Your task to perform on an android device: visit the assistant section in the google photos Image 0: 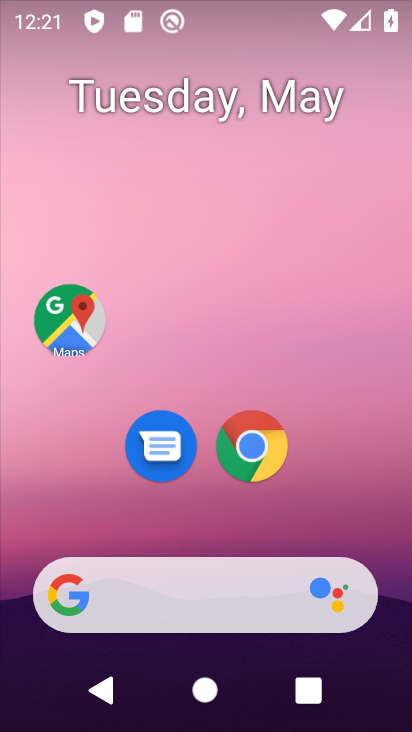
Step 0: press home button
Your task to perform on an android device: visit the assistant section in the google photos Image 1: 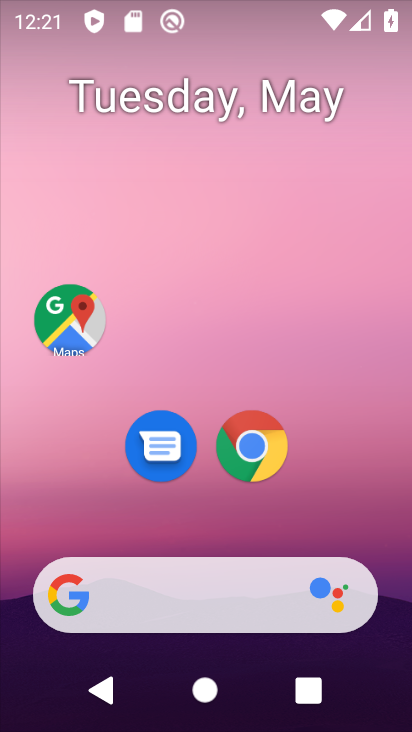
Step 1: drag from (221, 590) to (175, 165)
Your task to perform on an android device: visit the assistant section in the google photos Image 2: 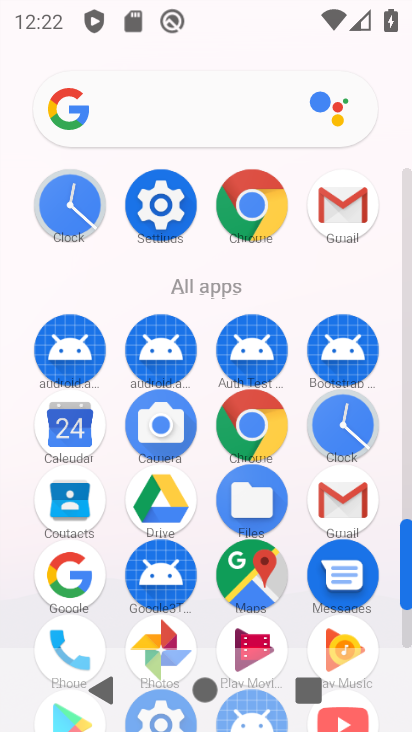
Step 2: drag from (218, 532) to (208, 233)
Your task to perform on an android device: visit the assistant section in the google photos Image 3: 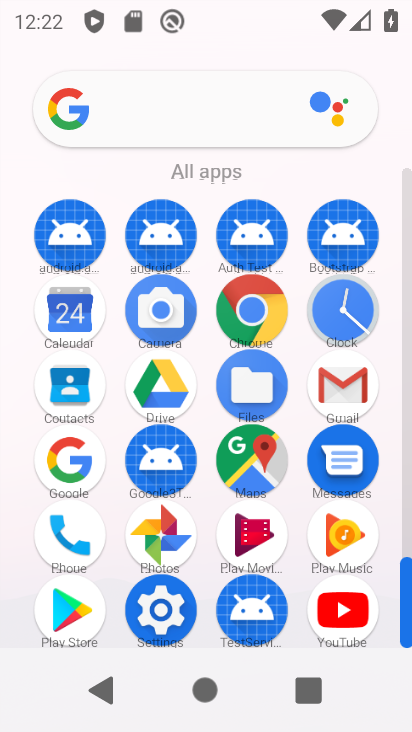
Step 3: click (176, 544)
Your task to perform on an android device: visit the assistant section in the google photos Image 4: 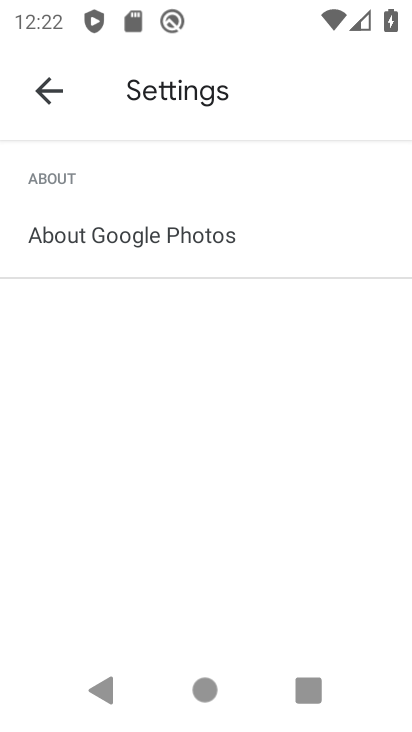
Step 4: click (47, 91)
Your task to perform on an android device: visit the assistant section in the google photos Image 5: 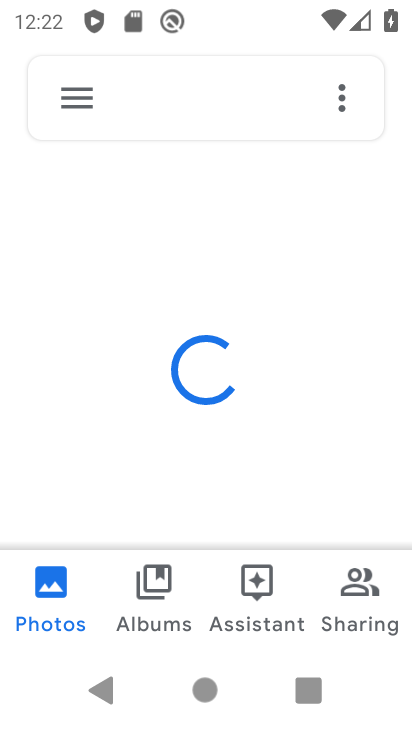
Step 5: click (256, 618)
Your task to perform on an android device: visit the assistant section in the google photos Image 6: 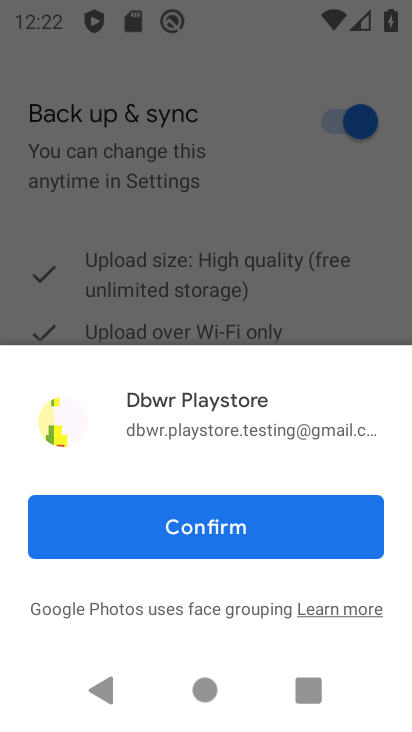
Step 6: click (257, 526)
Your task to perform on an android device: visit the assistant section in the google photos Image 7: 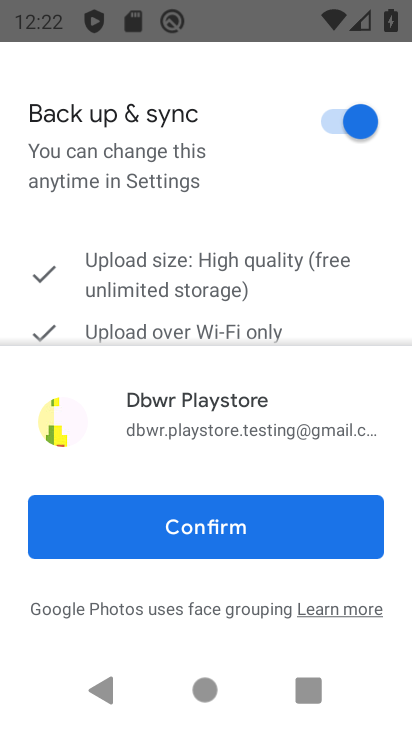
Step 7: click (239, 537)
Your task to perform on an android device: visit the assistant section in the google photos Image 8: 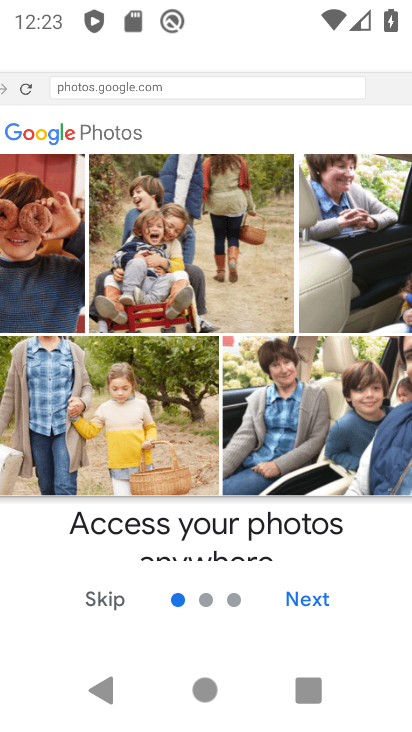
Step 8: click (306, 596)
Your task to perform on an android device: visit the assistant section in the google photos Image 9: 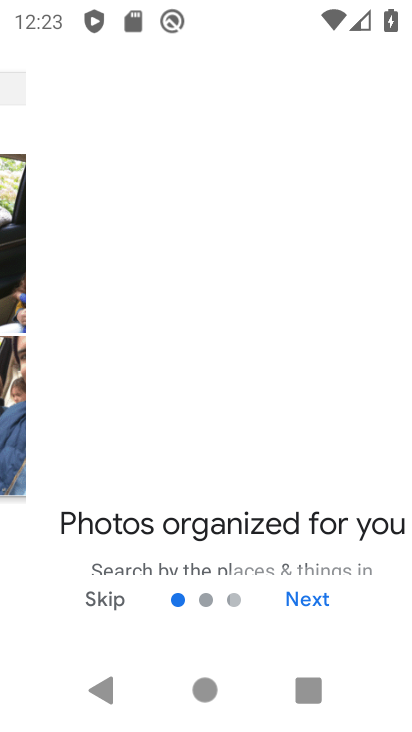
Step 9: click (306, 596)
Your task to perform on an android device: visit the assistant section in the google photos Image 10: 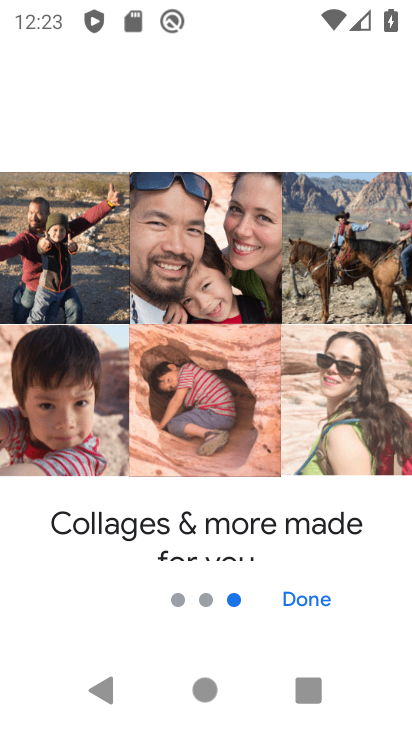
Step 10: click (306, 596)
Your task to perform on an android device: visit the assistant section in the google photos Image 11: 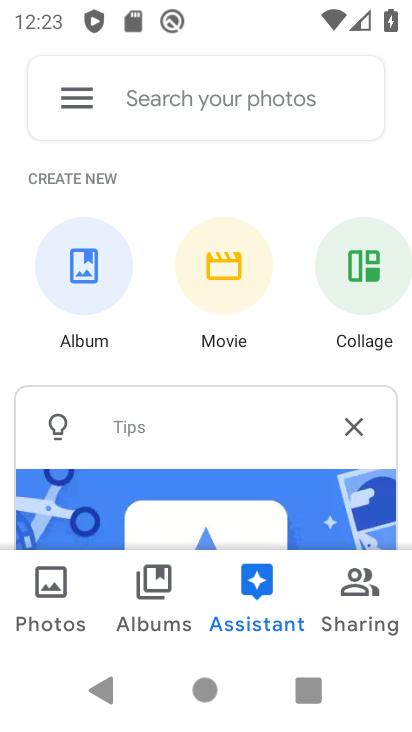
Step 11: task complete